Your task to perform on an android device: make emails show in primary in the gmail app Image 0: 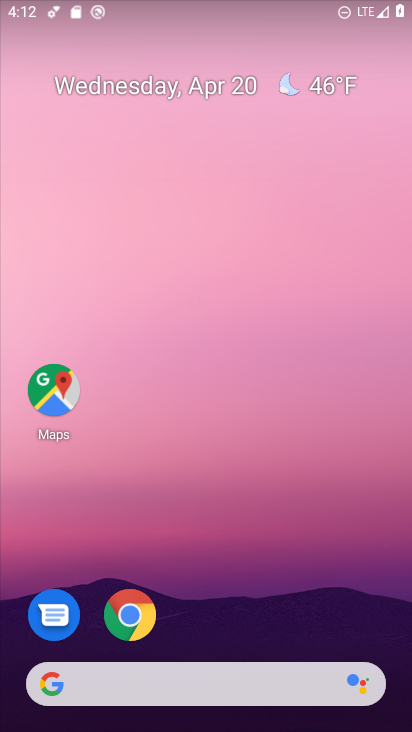
Step 0: drag from (192, 644) to (339, 86)
Your task to perform on an android device: make emails show in primary in the gmail app Image 1: 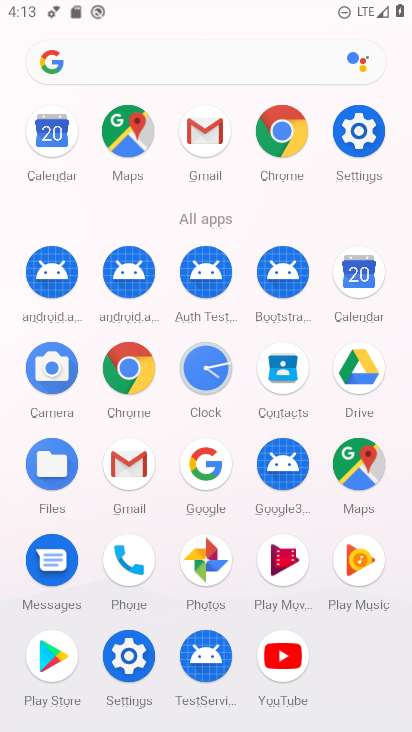
Step 1: click (203, 126)
Your task to perform on an android device: make emails show in primary in the gmail app Image 2: 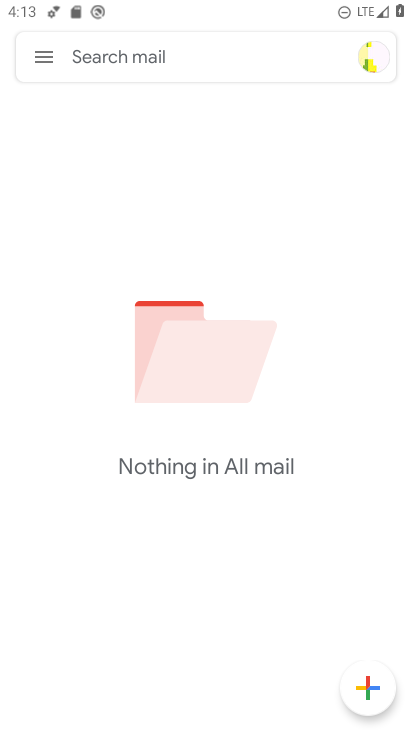
Step 2: click (41, 52)
Your task to perform on an android device: make emails show in primary in the gmail app Image 3: 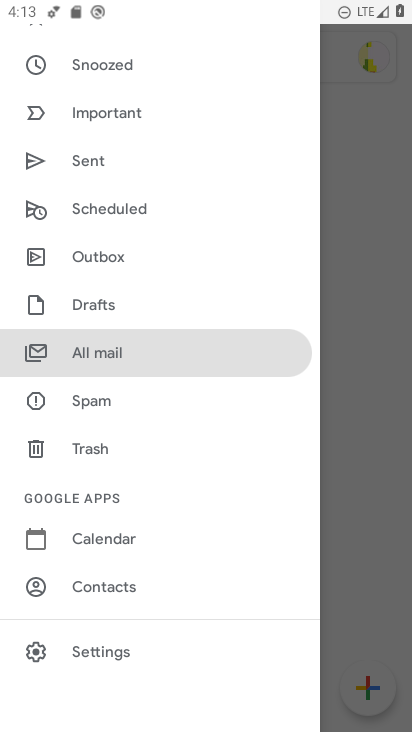
Step 3: click (106, 650)
Your task to perform on an android device: make emails show in primary in the gmail app Image 4: 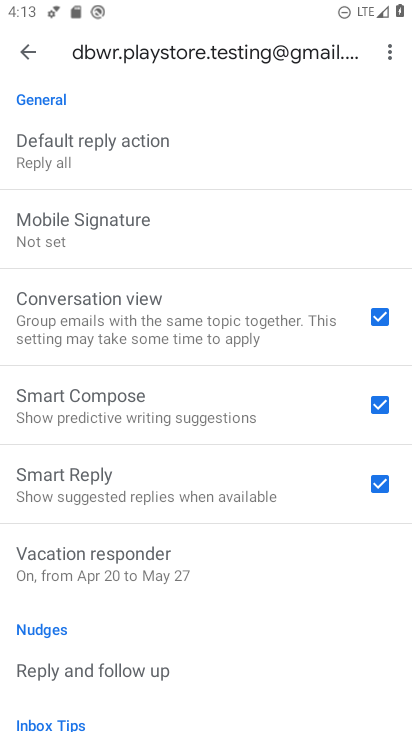
Step 4: drag from (218, 158) to (155, 675)
Your task to perform on an android device: make emails show in primary in the gmail app Image 5: 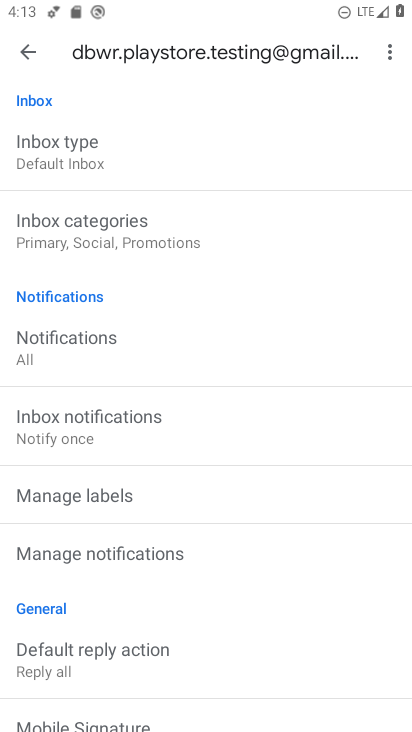
Step 5: click (144, 220)
Your task to perform on an android device: make emails show in primary in the gmail app Image 6: 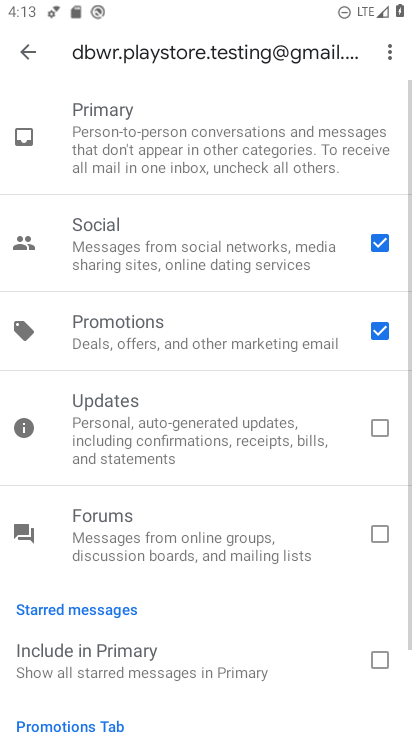
Step 6: click (378, 648)
Your task to perform on an android device: make emails show in primary in the gmail app Image 7: 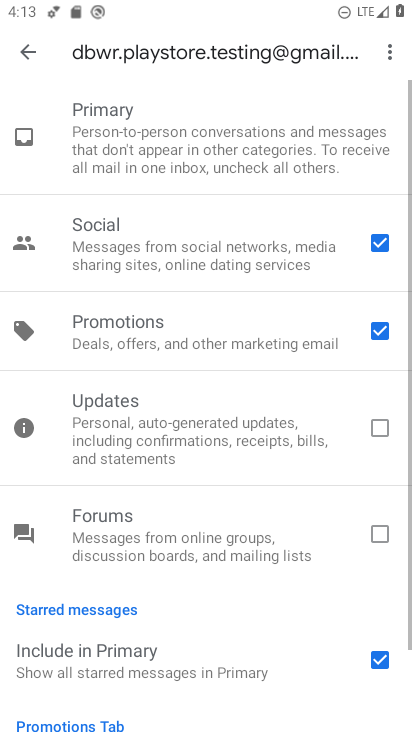
Step 7: click (382, 535)
Your task to perform on an android device: make emails show in primary in the gmail app Image 8: 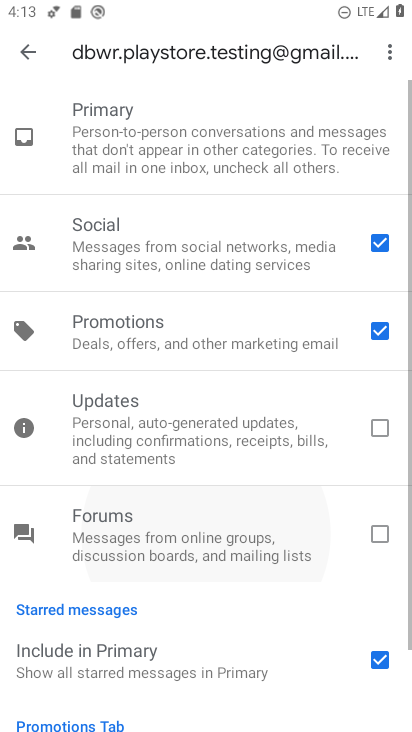
Step 8: click (376, 406)
Your task to perform on an android device: make emails show in primary in the gmail app Image 9: 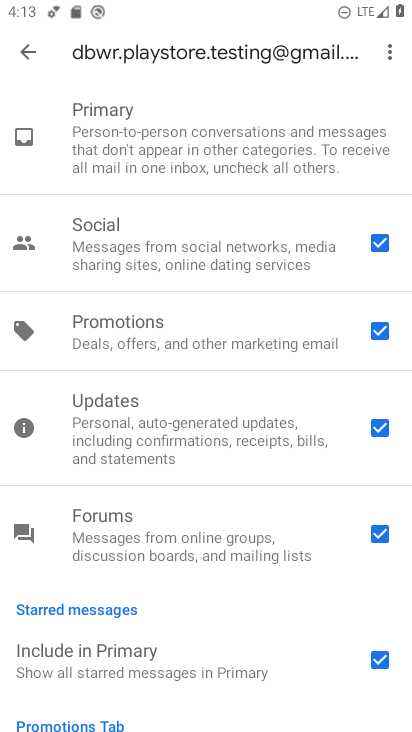
Step 9: task complete